Your task to perform on an android device: Open Google Chrome Image 0: 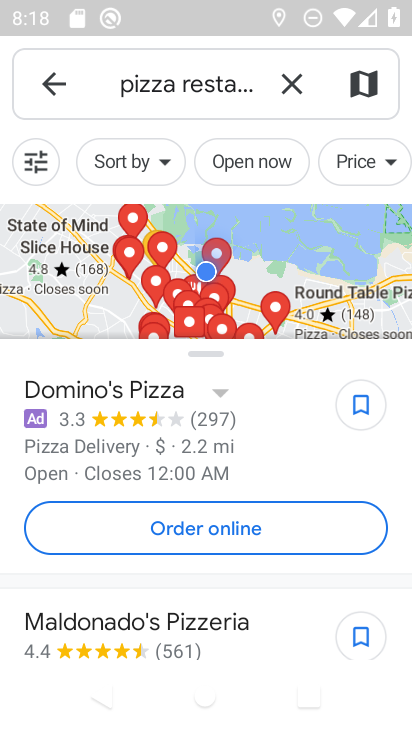
Step 0: press home button
Your task to perform on an android device: Open Google Chrome Image 1: 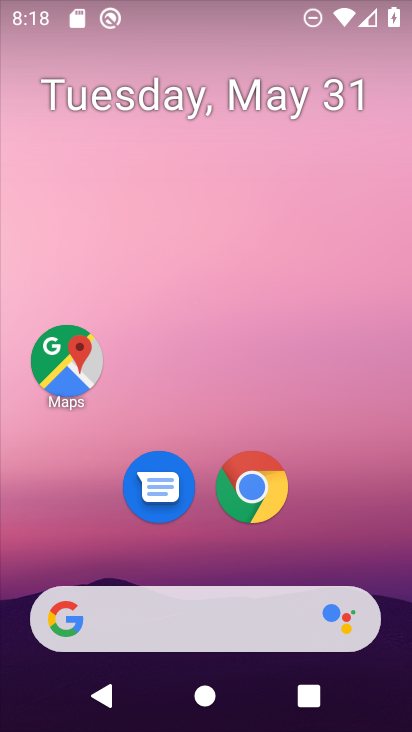
Step 1: click (260, 497)
Your task to perform on an android device: Open Google Chrome Image 2: 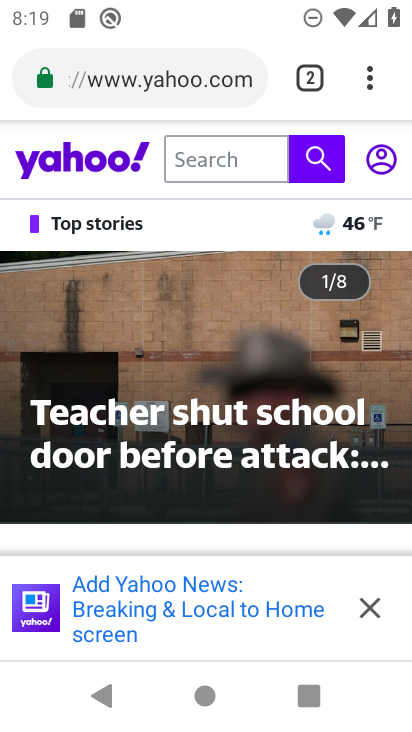
Step 2: task complete